Your task to perform on an android device: Go to notification settings Image 0: 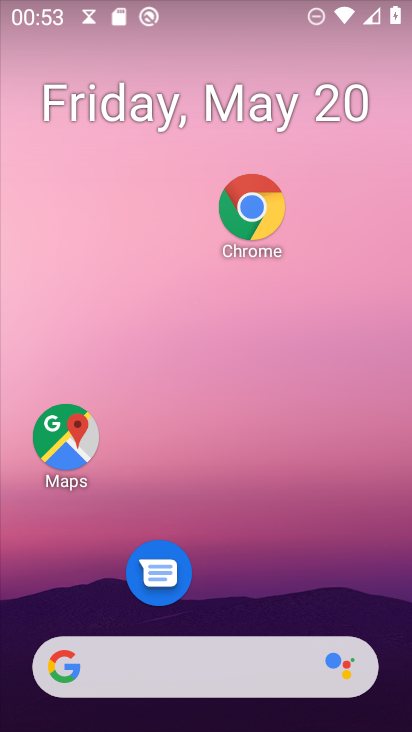
Step 0: drag from (272, 563) to (322, 46)
Your task to perform on an android device: Go to notification settings Image 1: 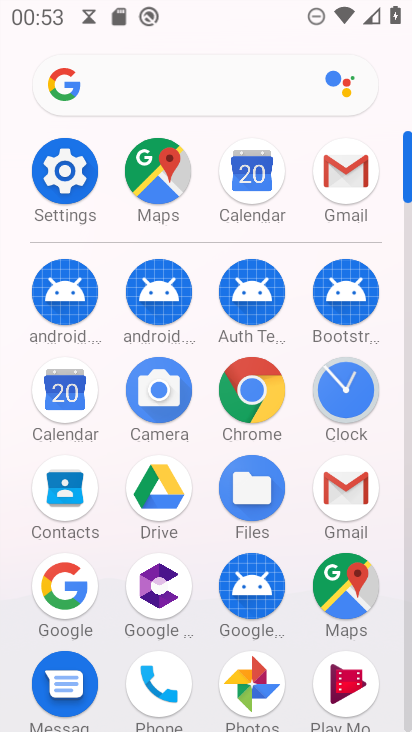
Step 1: click (58, 175)
Your task to perform on an android device: Go to notification settings Image 2: 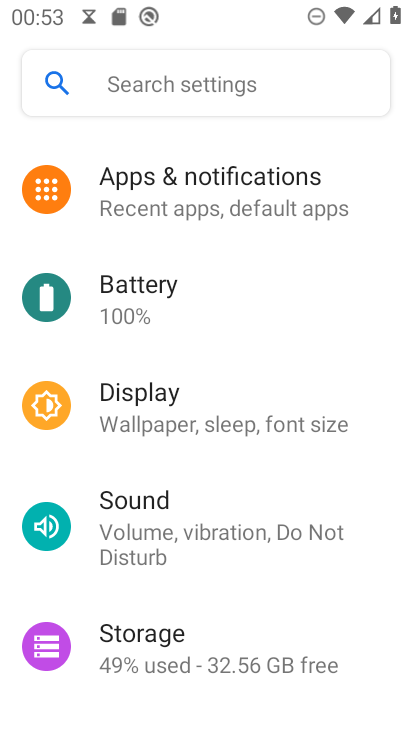
Step 2: click (261, 209)
Your task to perform on an android device: Go to notification settings Image 3: 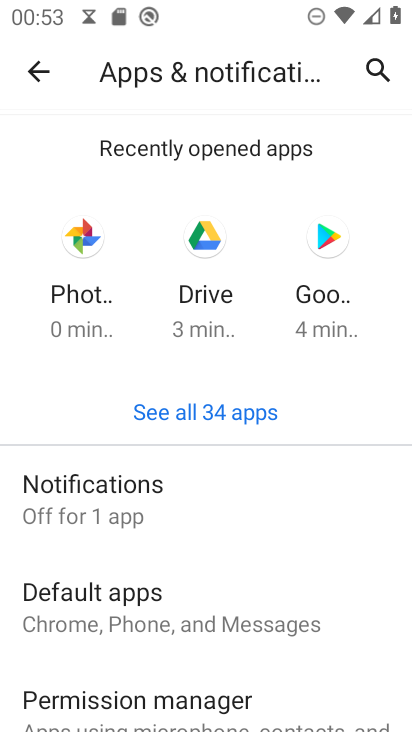
Step 3: click (200, 494)
Your task to perform on an android device: Go to notification settings Image 4: 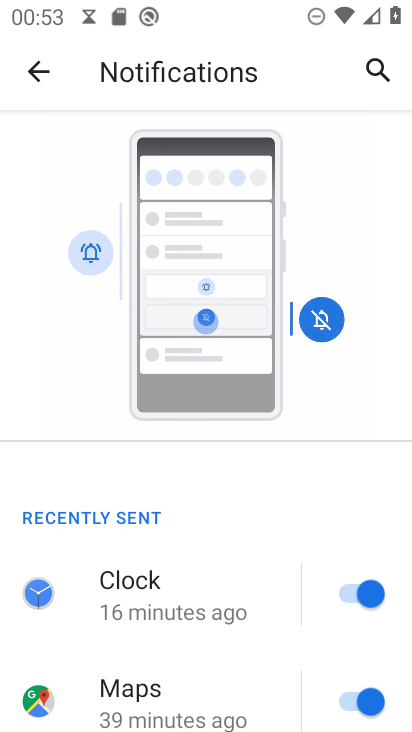
Step 4: task complete